Your task to perform on an android device: set the stopwatch Image 0: 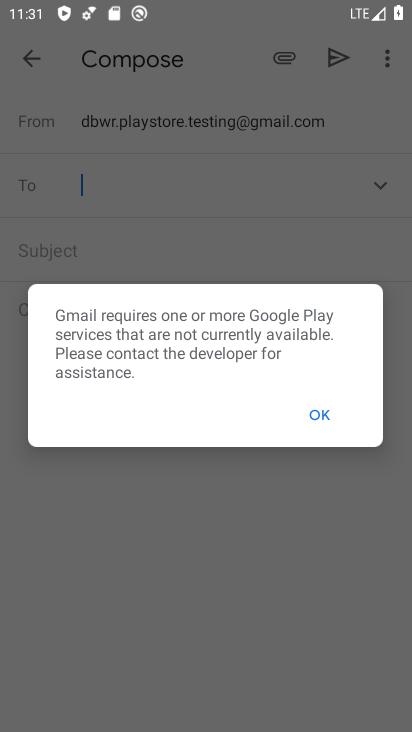
Step 0: press home button
Your task to perform on an android device: set the stopwatch Image 1: 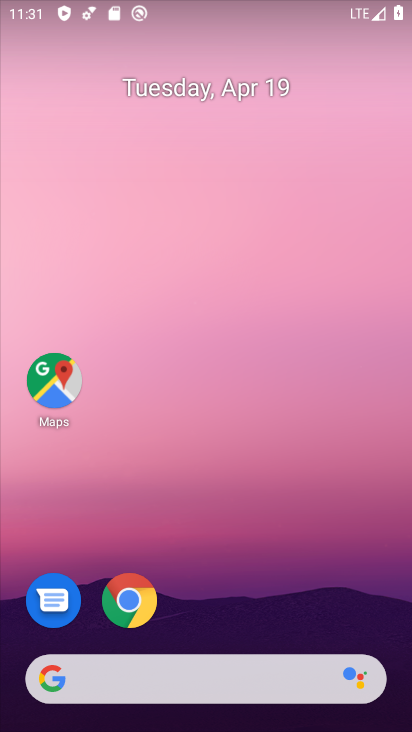
Step 1: drag from (379, 575) to (396, 11)
Your task to perform on an android device: set the stopwatch Image 2: 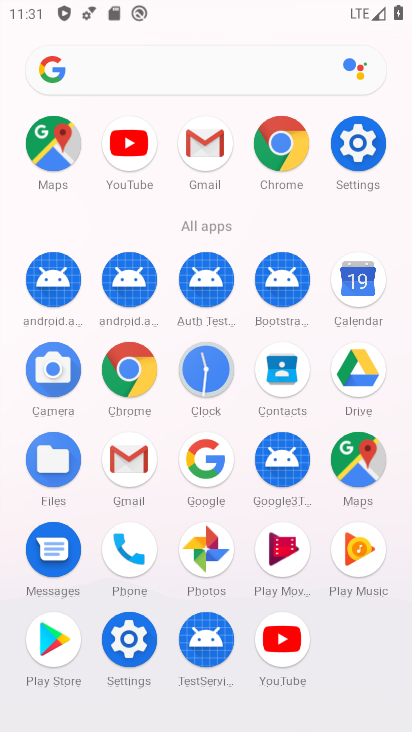
Step 2: click (201, 370)
Your task to perform on an android device: set the stopwatch Image 3: 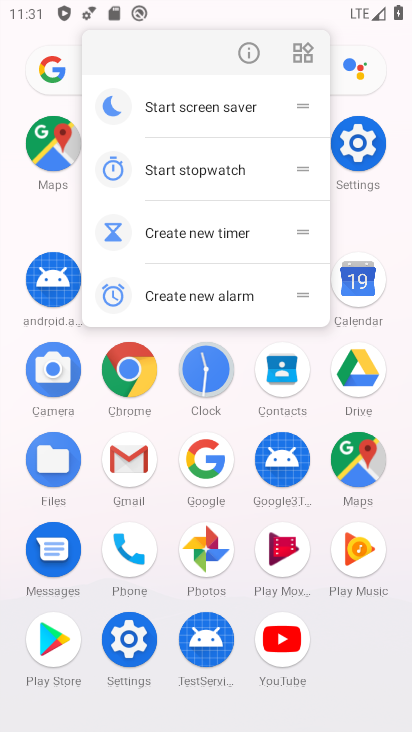
Step 3: click (203, 373)
Your task to perform on an android device: set the stopwatch Image 4: 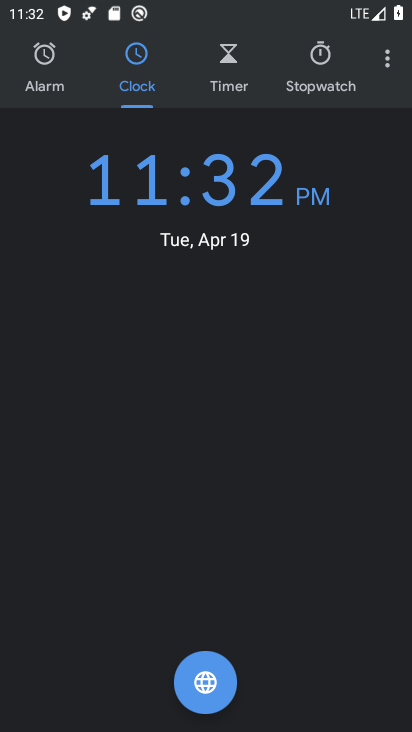
Step 4: click (325, 70)
Your task to perform on an android device: set the stopwatch Image 5: 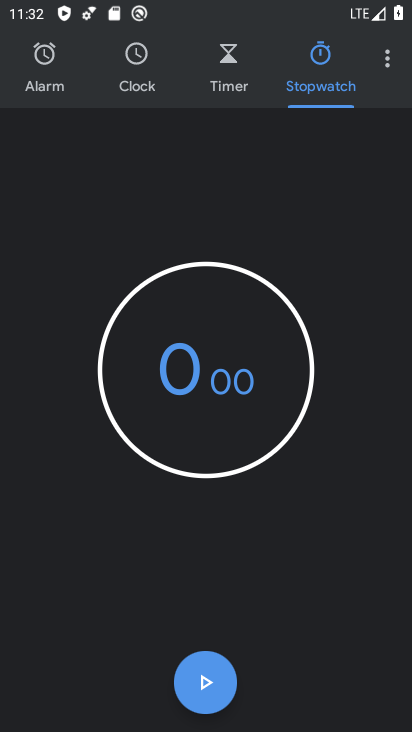
Step 5: click (206, 694)
Your task to perform on an android device: set the stopwatch Image 6: 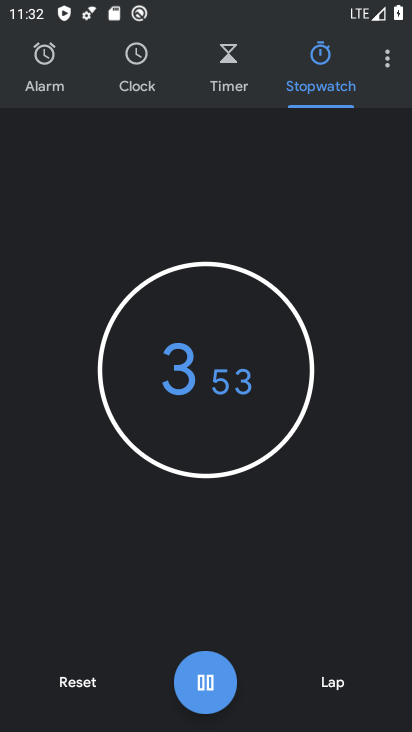
Step 6: click (206, 694)
Your task to perform on an android device: set the stopwatch Image 7: 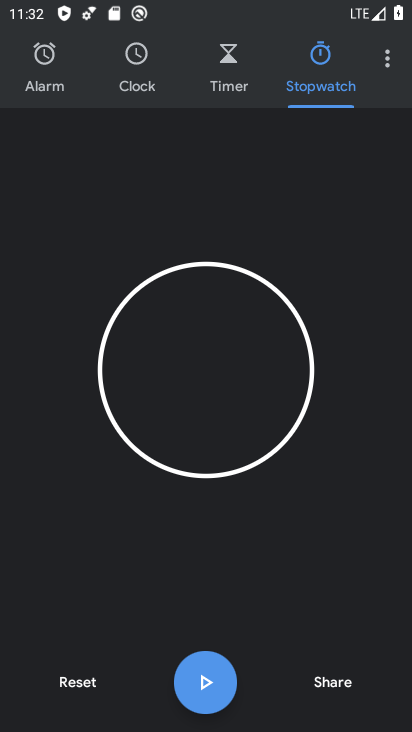
Step 7: task complete